Your task to perform on an android device: Go to settings Image 0: 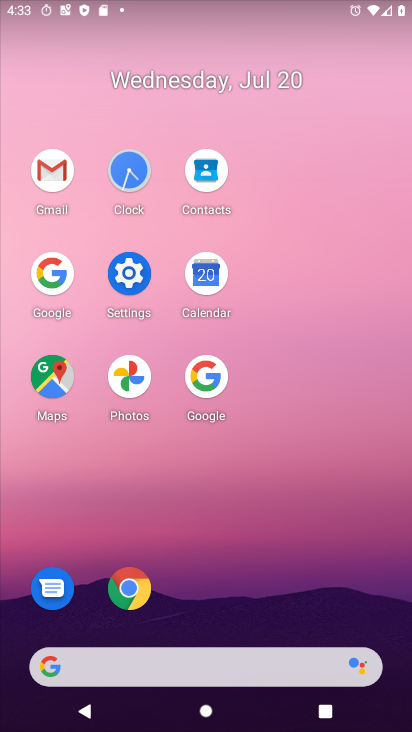
Step 0: click (132, 263)
Your task to perform on an android device: Go to settings Image 1: 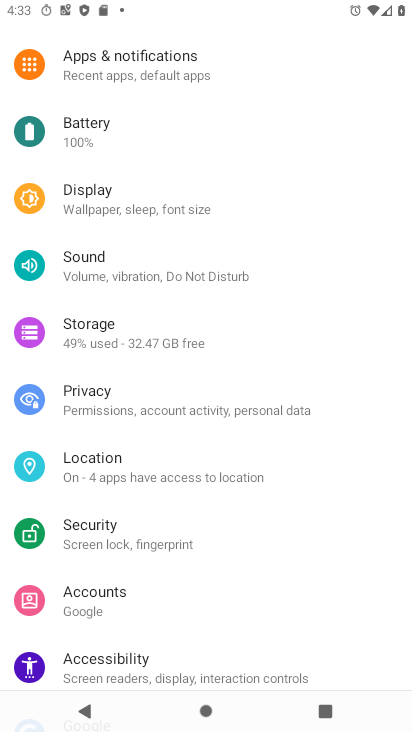
Step 1: task complete